Your task to perform on an android device: Open the Play Movies app and select the watchlist tab. Image 0: 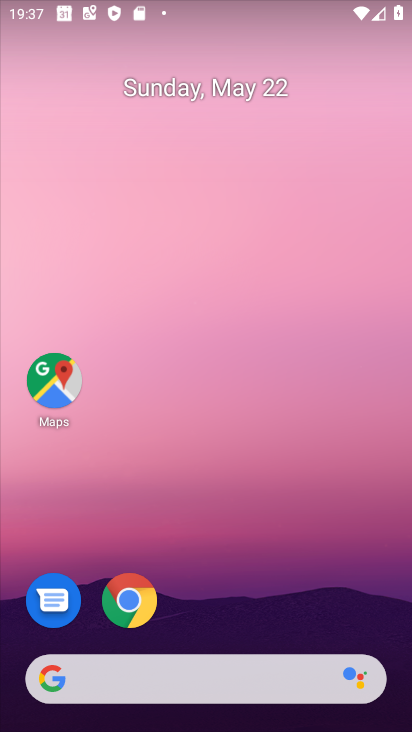
Step 0: drag from (286, 563) to (311, 2)
Your task to perform on an android device: Open the Play Movies app and select the watchlist tab. Image 1: 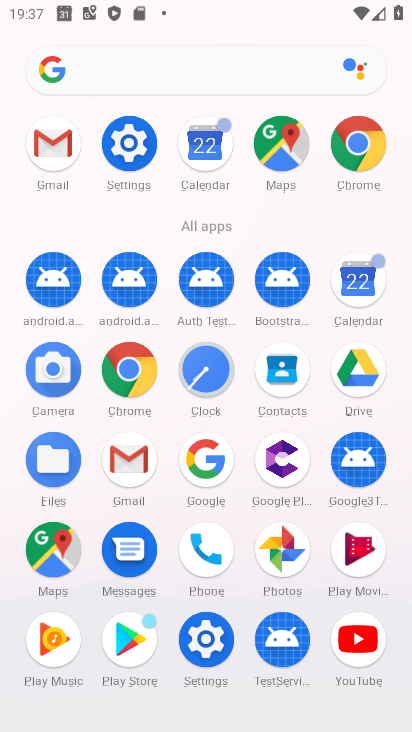
Step 1: drag from (13, 497) to (8, 201)
Your task to perform on an android device: Open the Play Movies app and select the watchlist tab. Image 2: 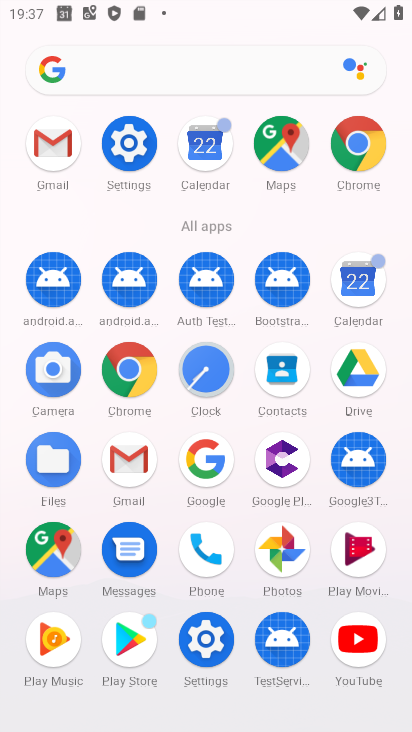
Step 2: click (367, 548)
Your task to perform on an android device: Open the Play Movies app and select the watchlist tab. Image 3: 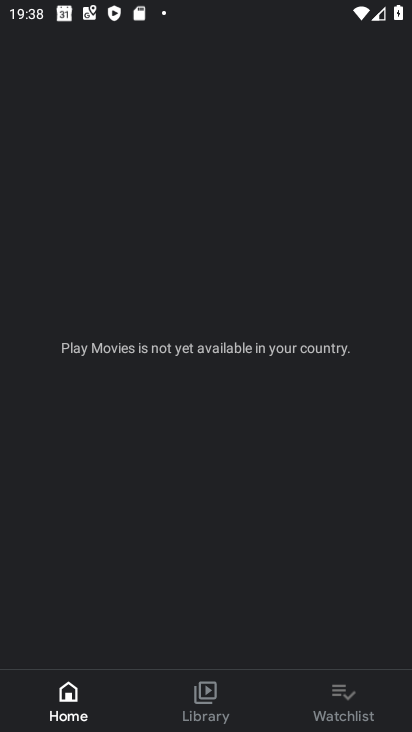
Step 3: click (349, 699)
Your task to perform on an android device: Open the Play Movies app and select the watchlist tab. Image 4: 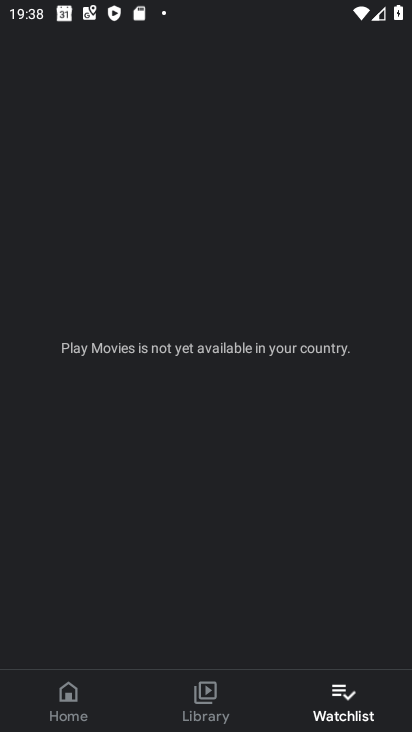
Step 4: task complete